Your task to perform on an android device: What's the weather? Image 0: 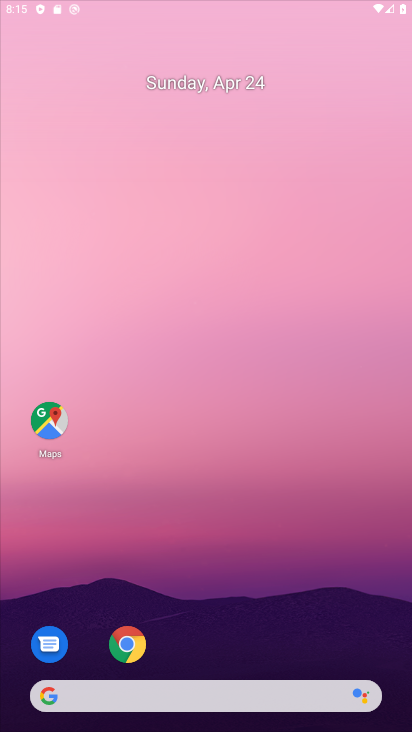
Step 0: drag from (203, 649) to (310, 165)
Your task to perform on an android device: What's the weather? Image 1: 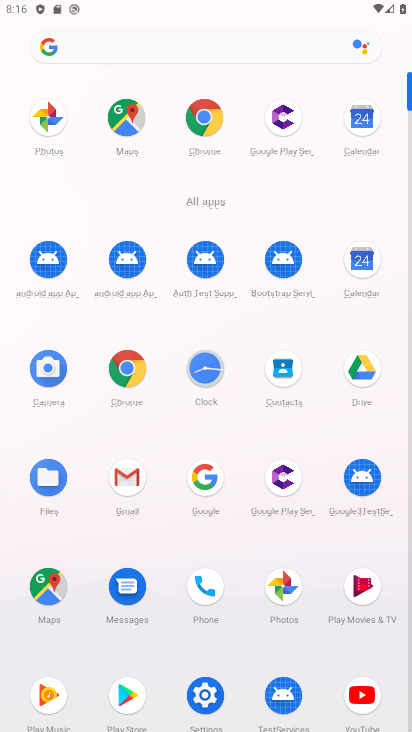
Step 1: click (127, 364)
Your task to perform on an android device: What's the weather? Image 2: 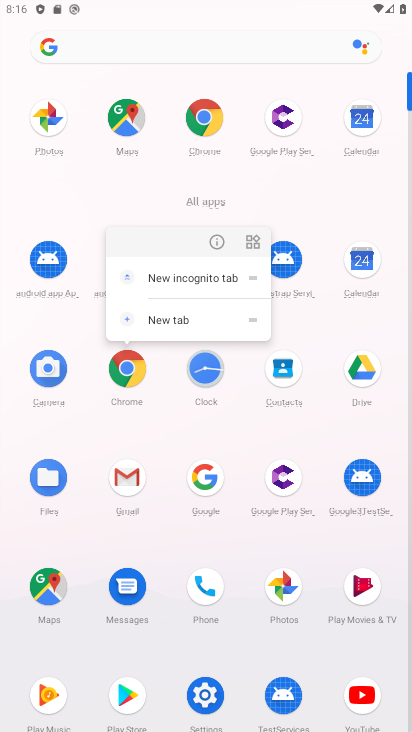
Step 2: click (220, 235)
Your task to perform on an android device: What's the weather? Image 3: 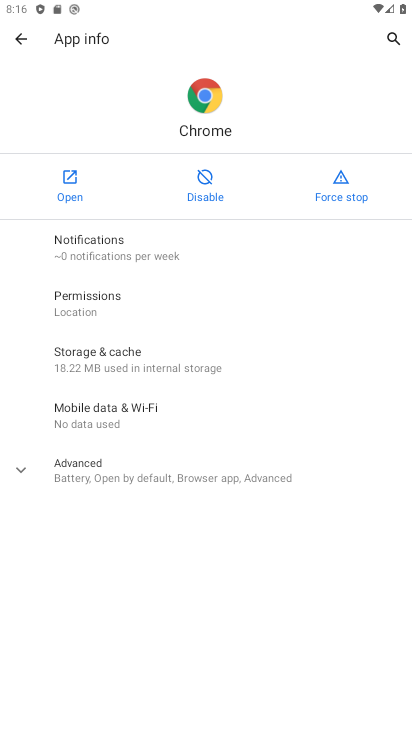
Step 3: click (76, 183)
Your task to perform on an android device: What's the weather? Image 4: 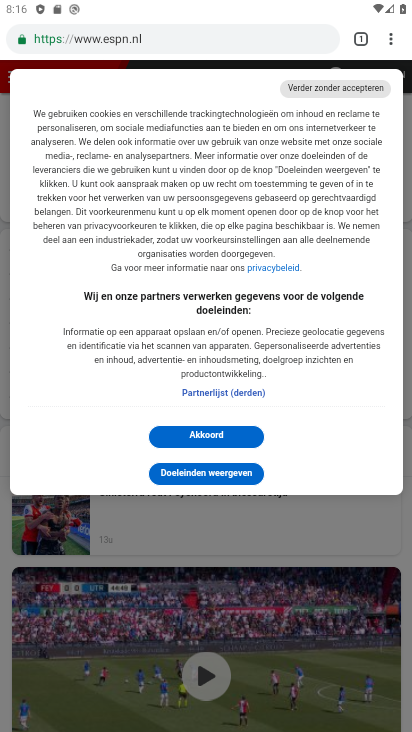
Step 4: drag from (327, 165) to (321, 464)
Your task to perform on an android device: What's the weather? Image 5: 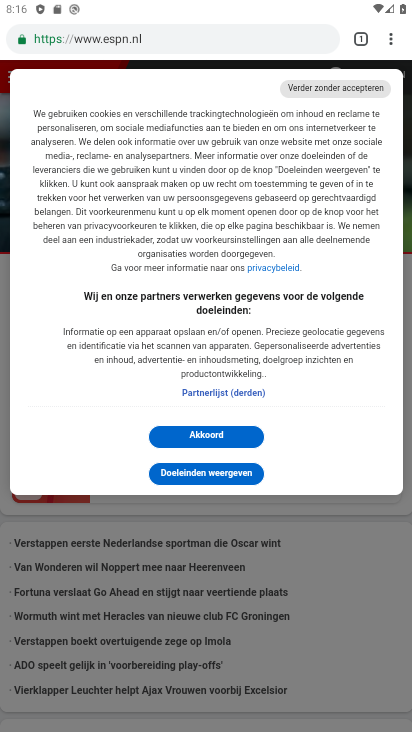
Step 5: click (225, 438)
Your task to perform on an android device: What's the weather? Image 6: 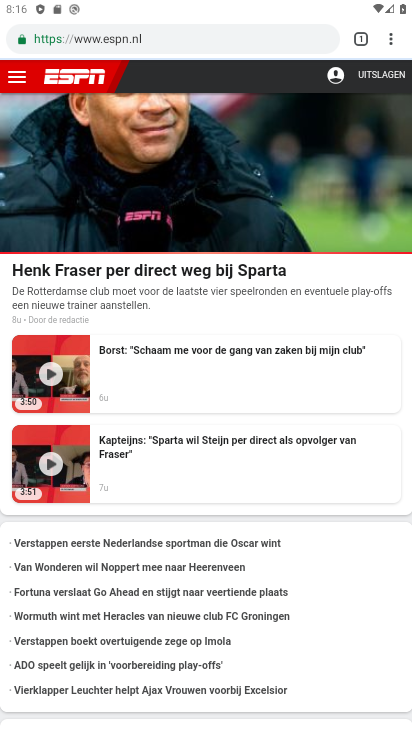
Step 6: drag from (247, 578) to (307, 180)
Your task to perform on an android device: What's the weather? Image 7: 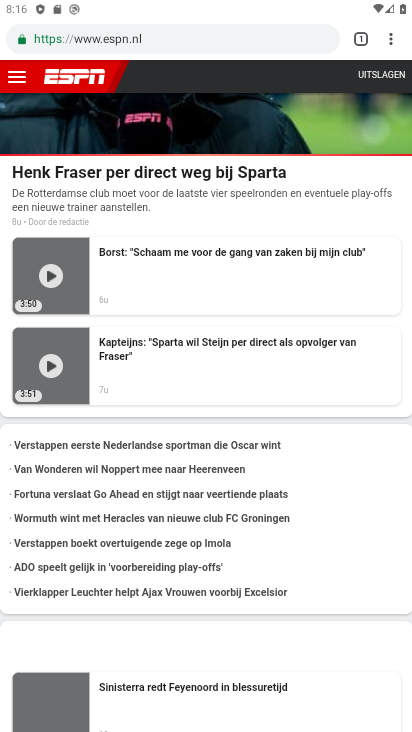
Step 7: click (171, 58)
Your task to perform on an android device: What's the weather? Image 8: 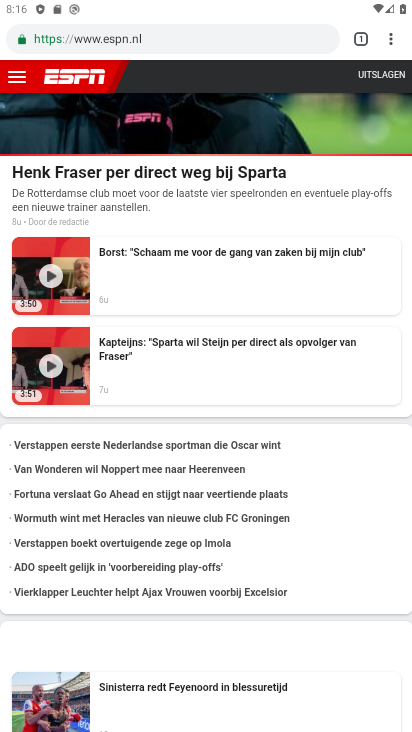
Step 8: click (184, 43)
Your task to perform on an android device: What's the weather? Image 9: 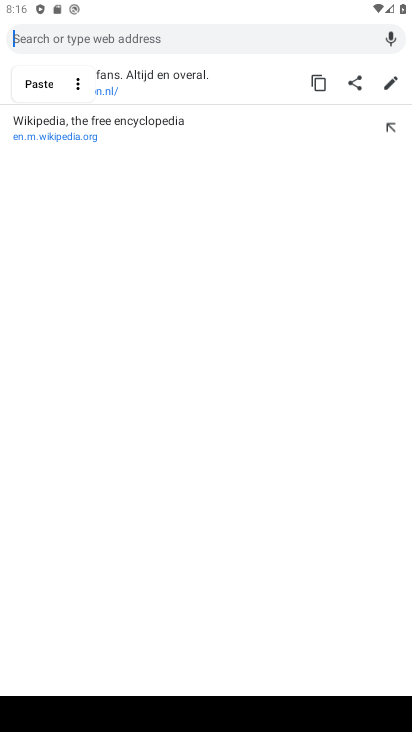
Step 9: type "weather"
Your task to perform on an android device: What's the weather? Image 10: 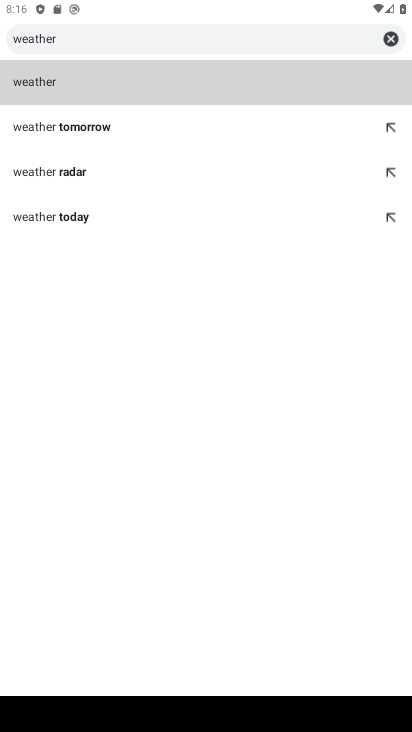
Step 10: click (62, 101)
Your task to perform on an android device: What's the weather? Image 11: 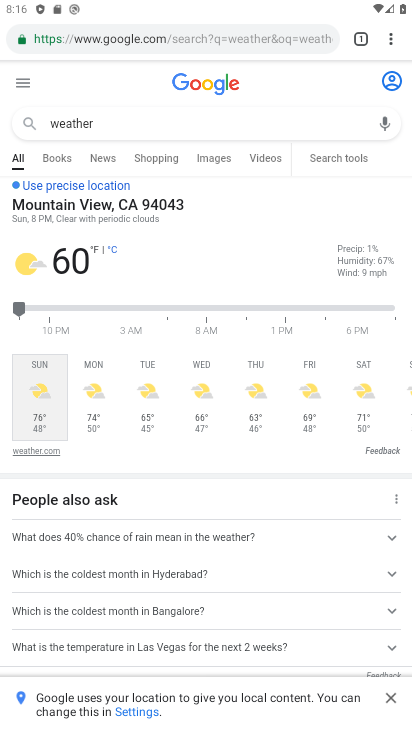
Step 11: task complete